Your task to perform on an android device: Look up the best rated Nike shoes on Nike.com Image 0: 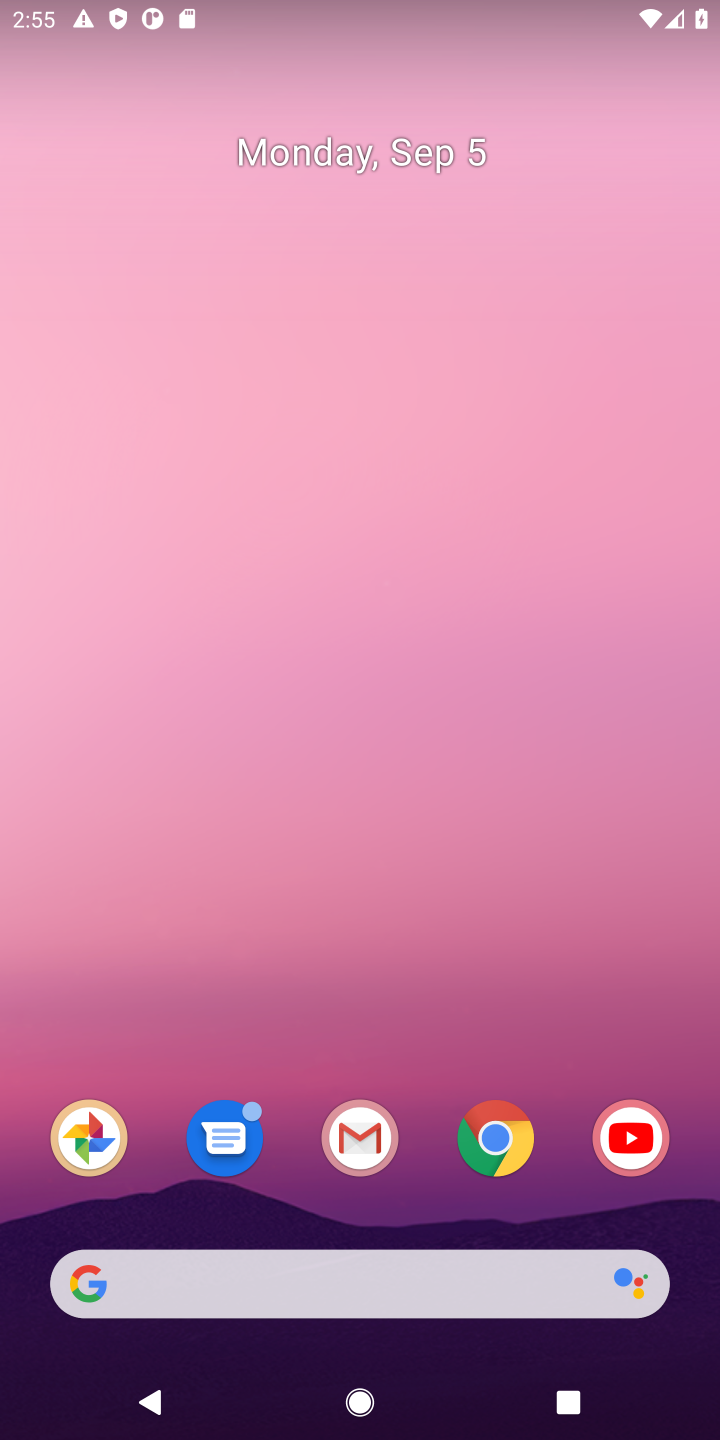
Step 0: click (494, 1137)
Your task to perform on an android device: Look up the best rated Nike shoes on Nike.com Image 1: 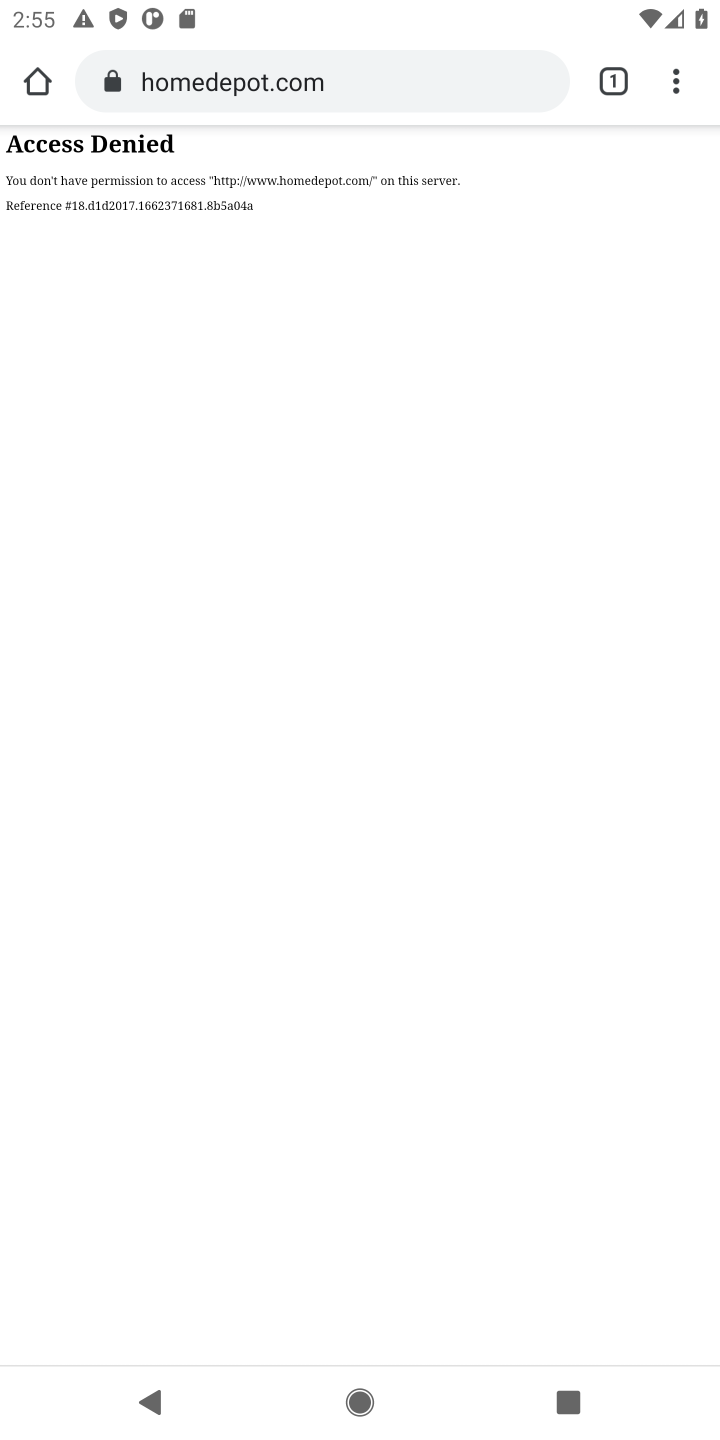
Step 1: click (446, 89)
Your task to perform on an android device: Look up the best rated Nike shoes on Nike.com Image 2: 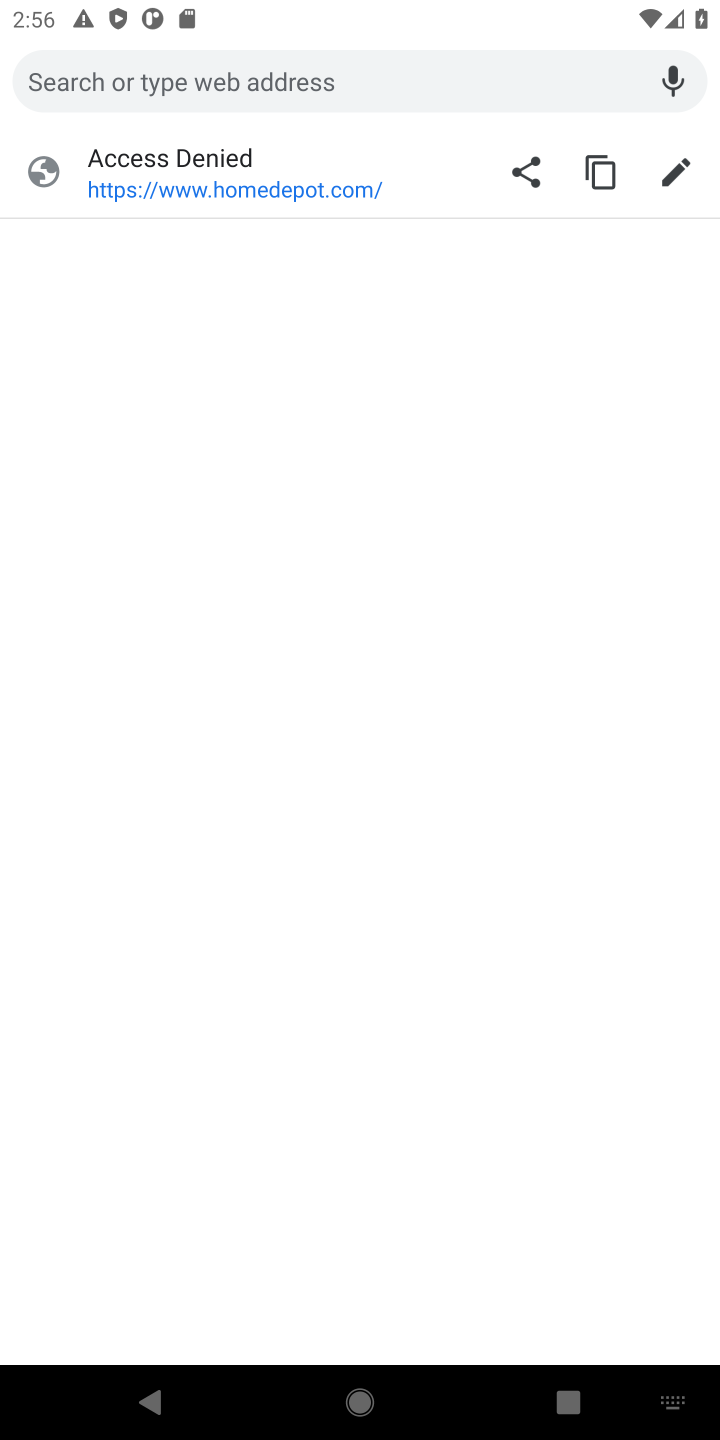
Step 2: type "Nike.com"
Your task to perform on an android device: Look up the best rated Nike shoes on Nike.com Image 3: 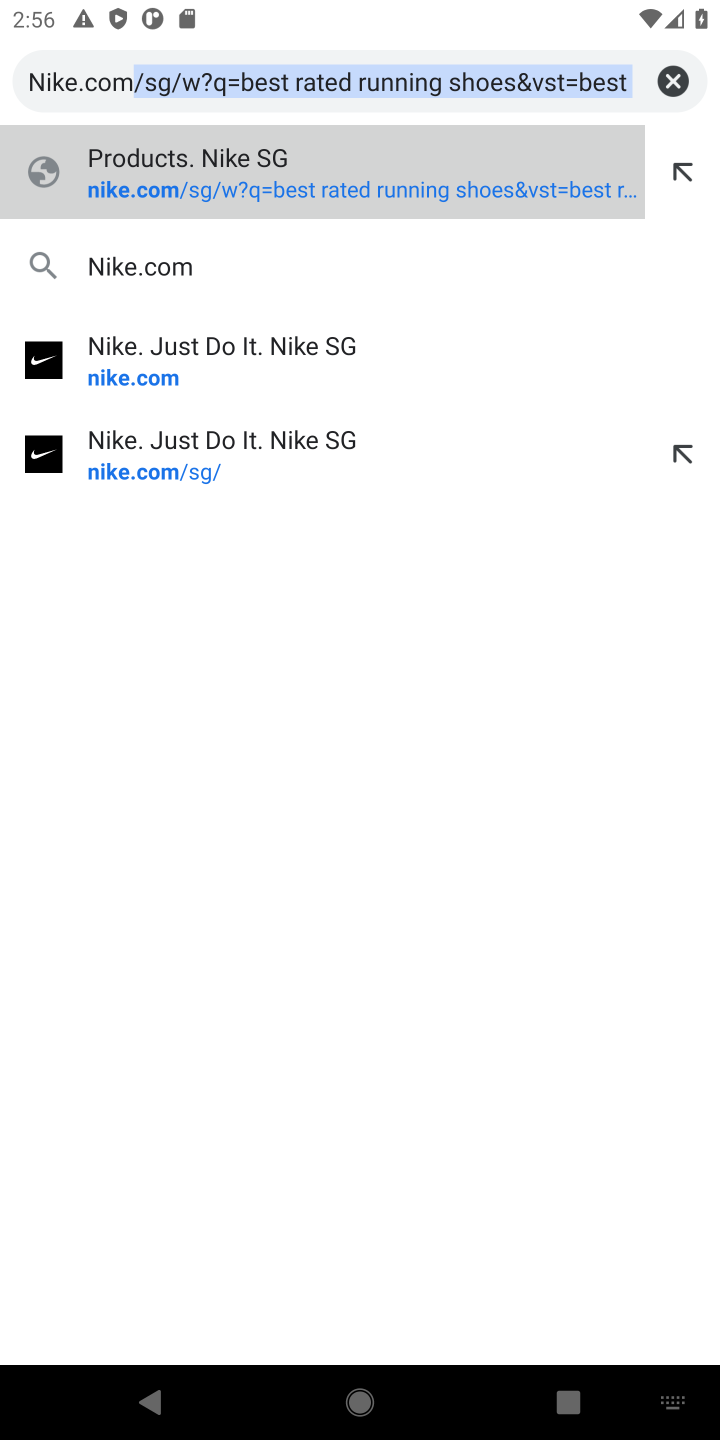
Step 3: click (121, 265)
Your task to perform on an android device: Look up the best rated Nike shoes on Nike.com Image 4: 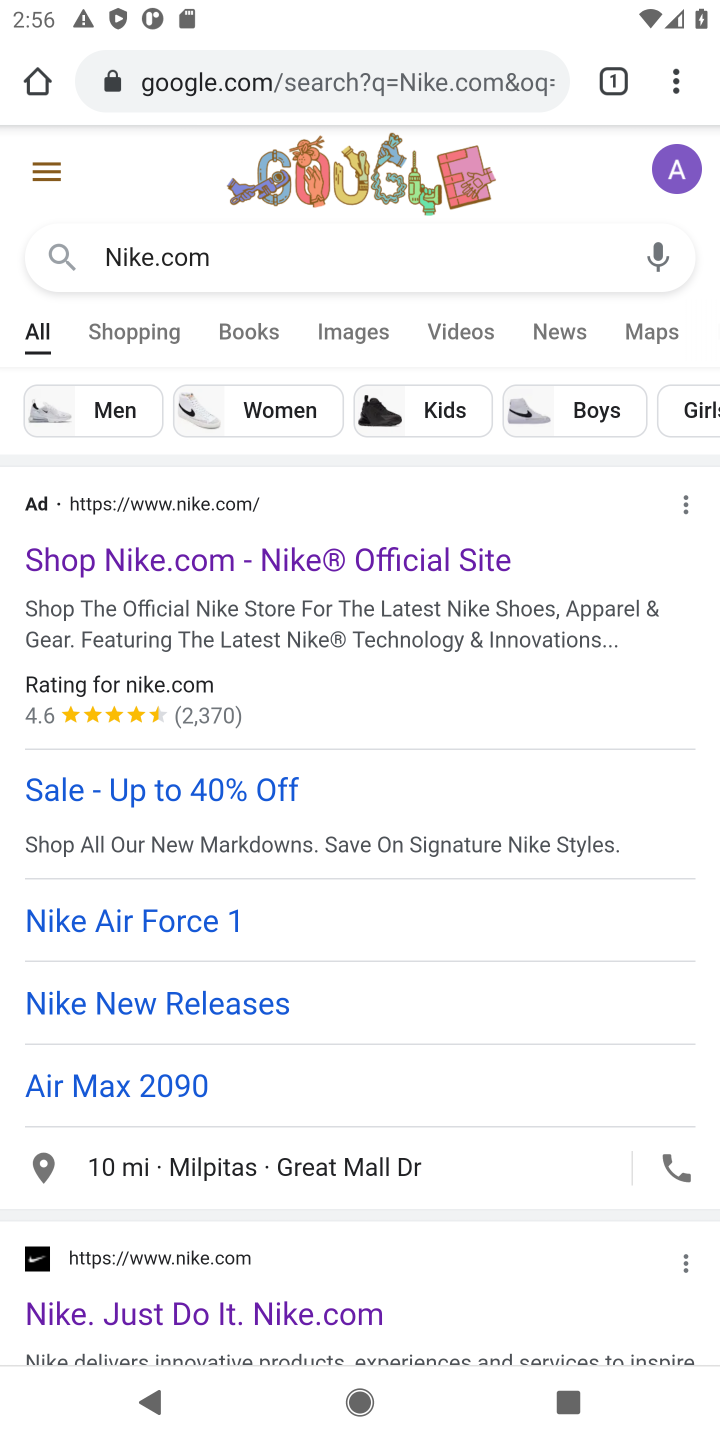
Step 4: click (337, 1331)
Your task to perform on an android device: Look up the best rated Nike shoes on Nike.com Image 5: 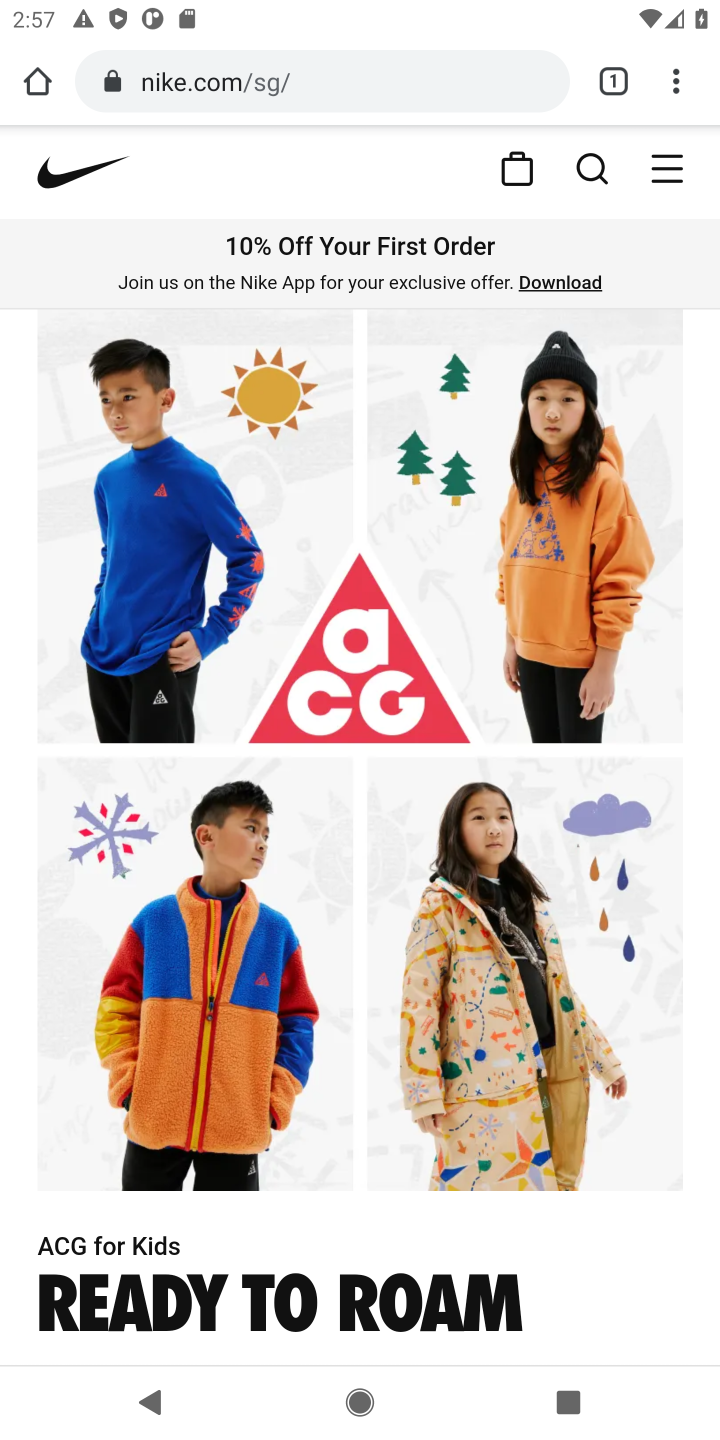
Step 5: click (589, 167)
Your task to perform on an android device: Look up the best rated Nike shoes on Nike.com Image 6: 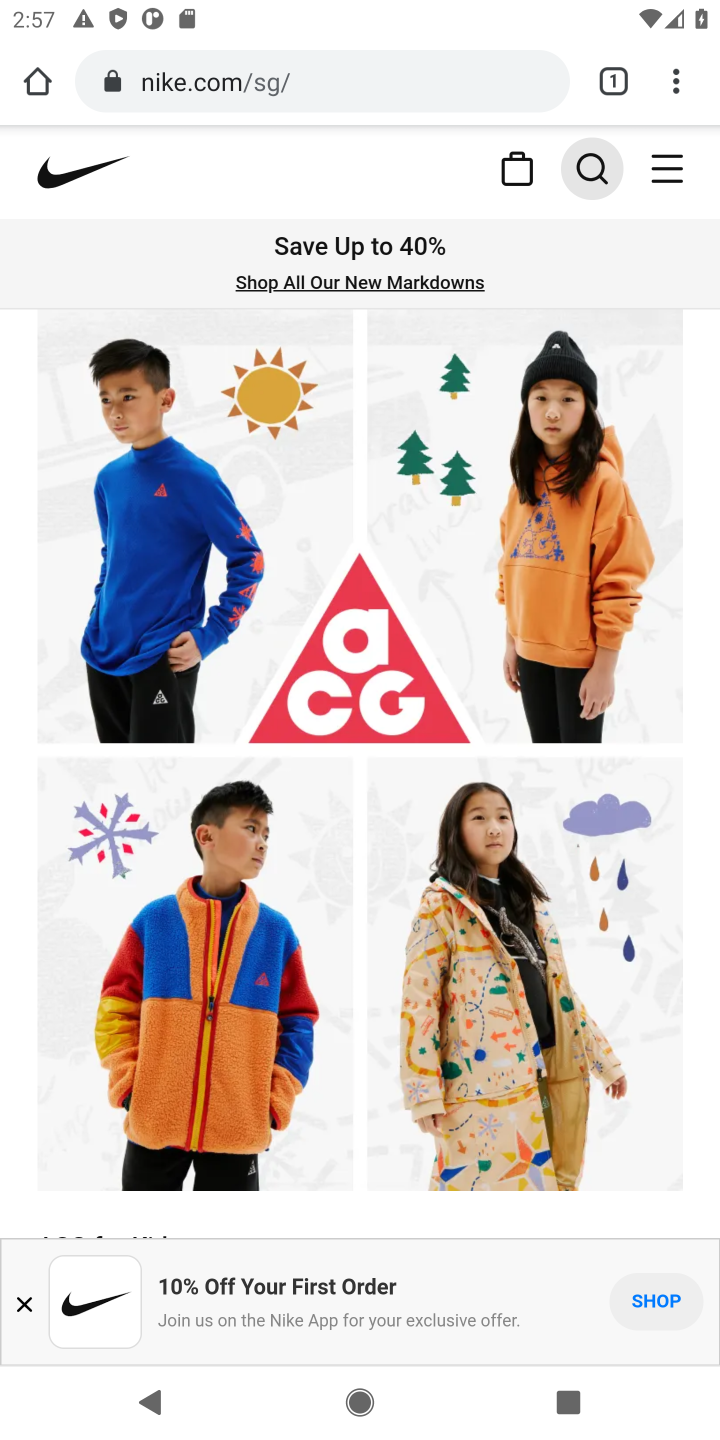
Step 6: click (583, 178)
Your task to perform on an android device: Look up the best rated Nike shoes on Nike.com Image 7: 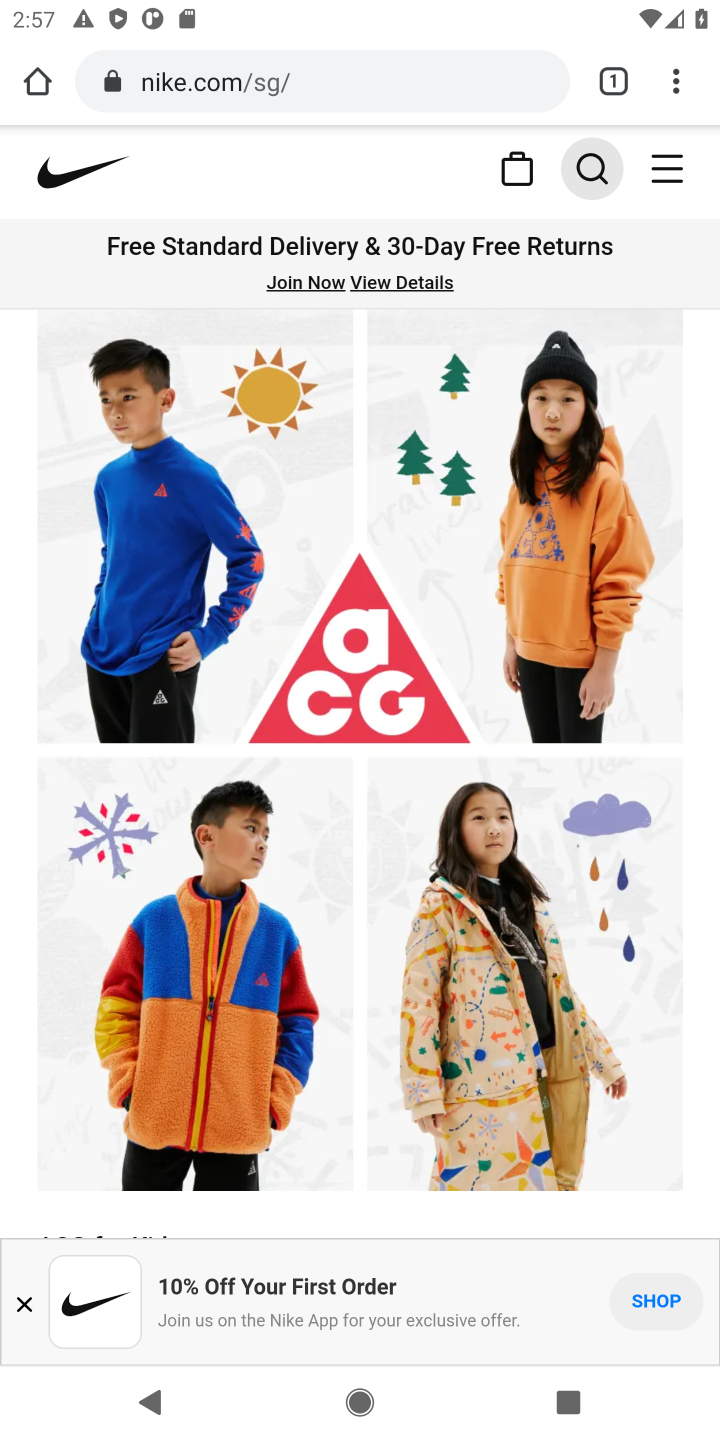
Step 7: click (601, 177)
Your task to perform on an android device: Look up the best rated Nike shoes on Nike.com Image 8: 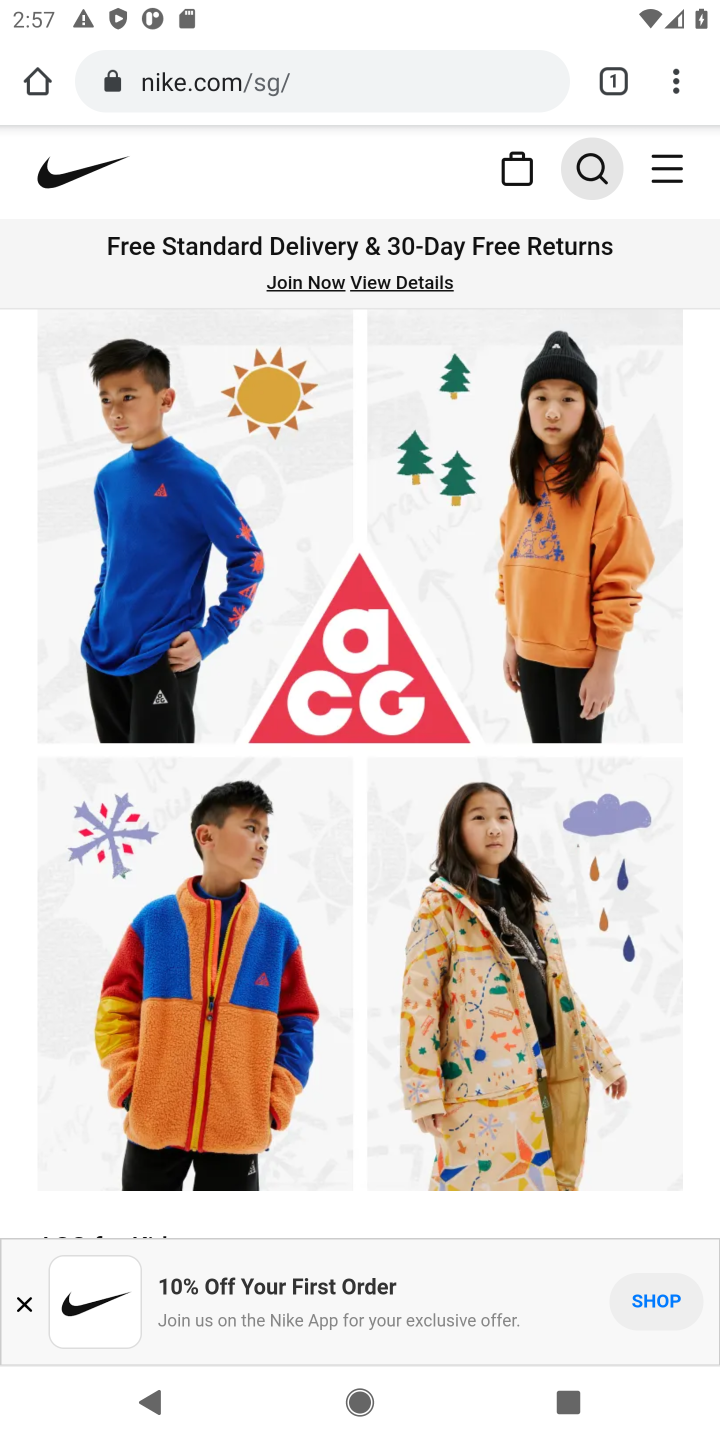
Step 8: click (592, 176)
Your task to perform on an android device: Look up the best rated Nike shoes on Nike.com Image 9: 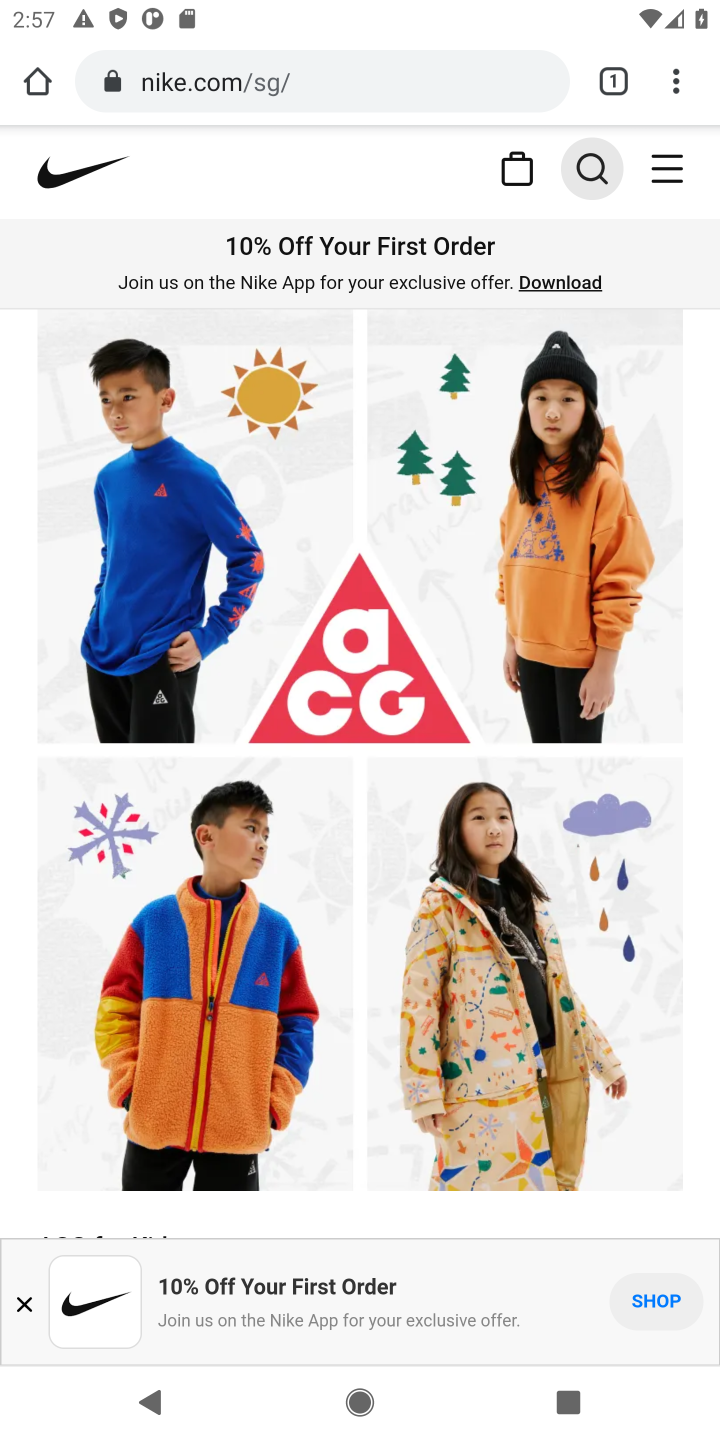
Step 9: click (582, 168)
Your task to perform on an android device: Look up the best rated Nike shoes on Nike.com Image 10: 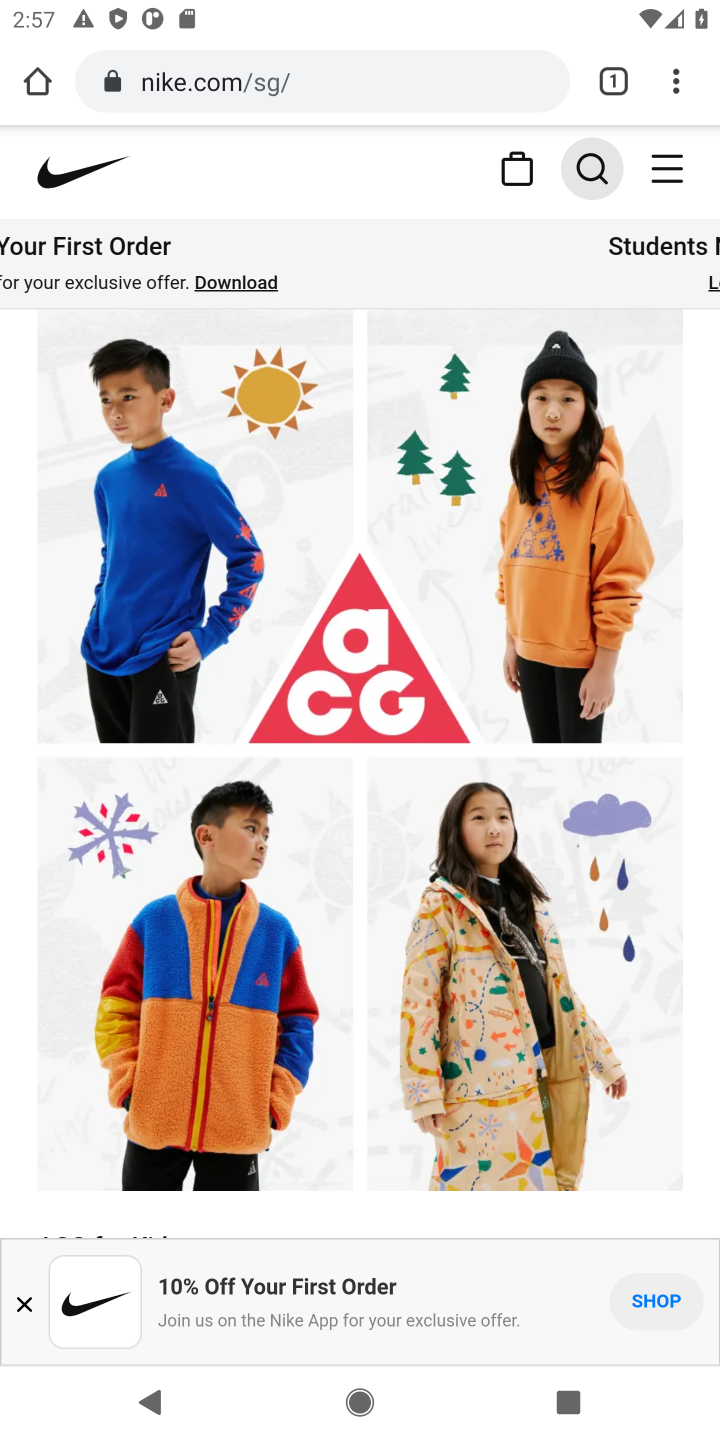
Step 10: click (590, 170)
Your task to perform on an android device: Look up the best rated Nike shoes on Nike.com Image 11: 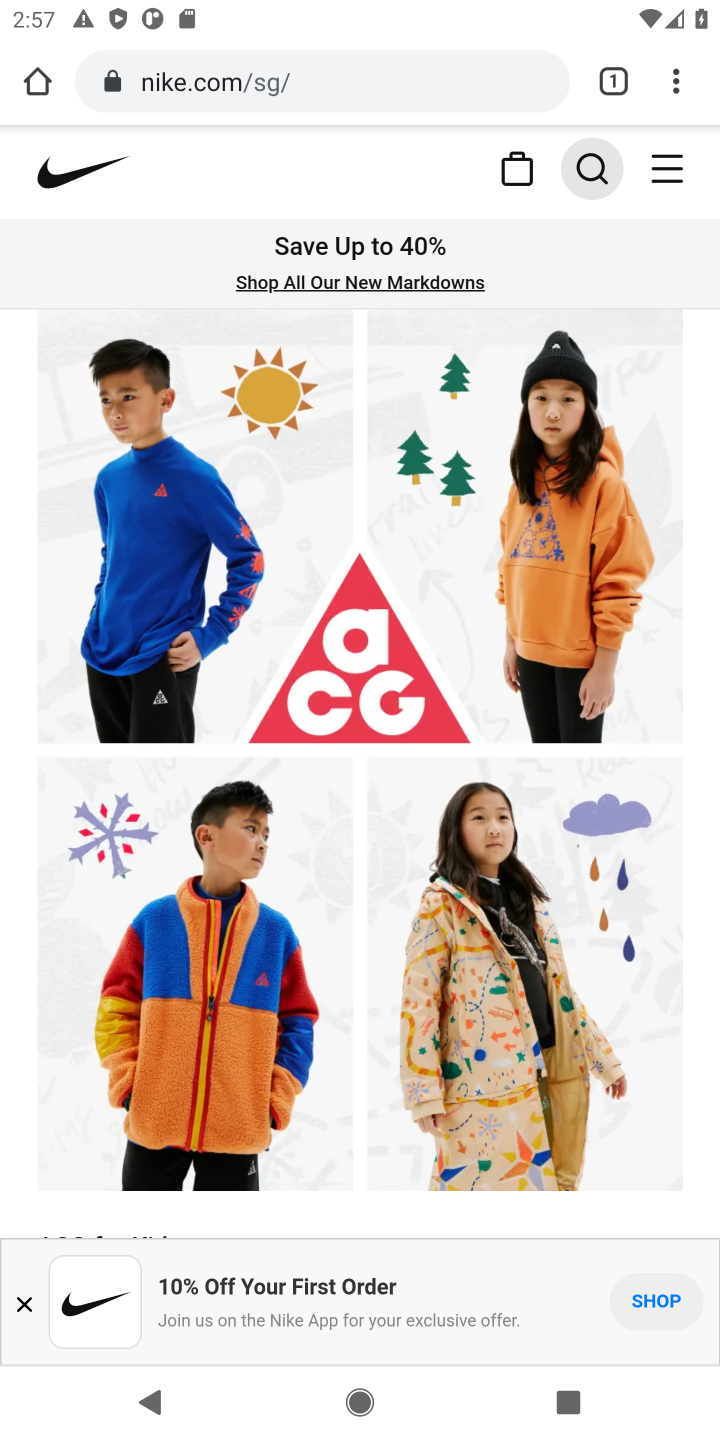
Step 11: click (589, 164)
Your task to perform on an android device: Look up the best rated Nike shoes on Nike.com Image 12: 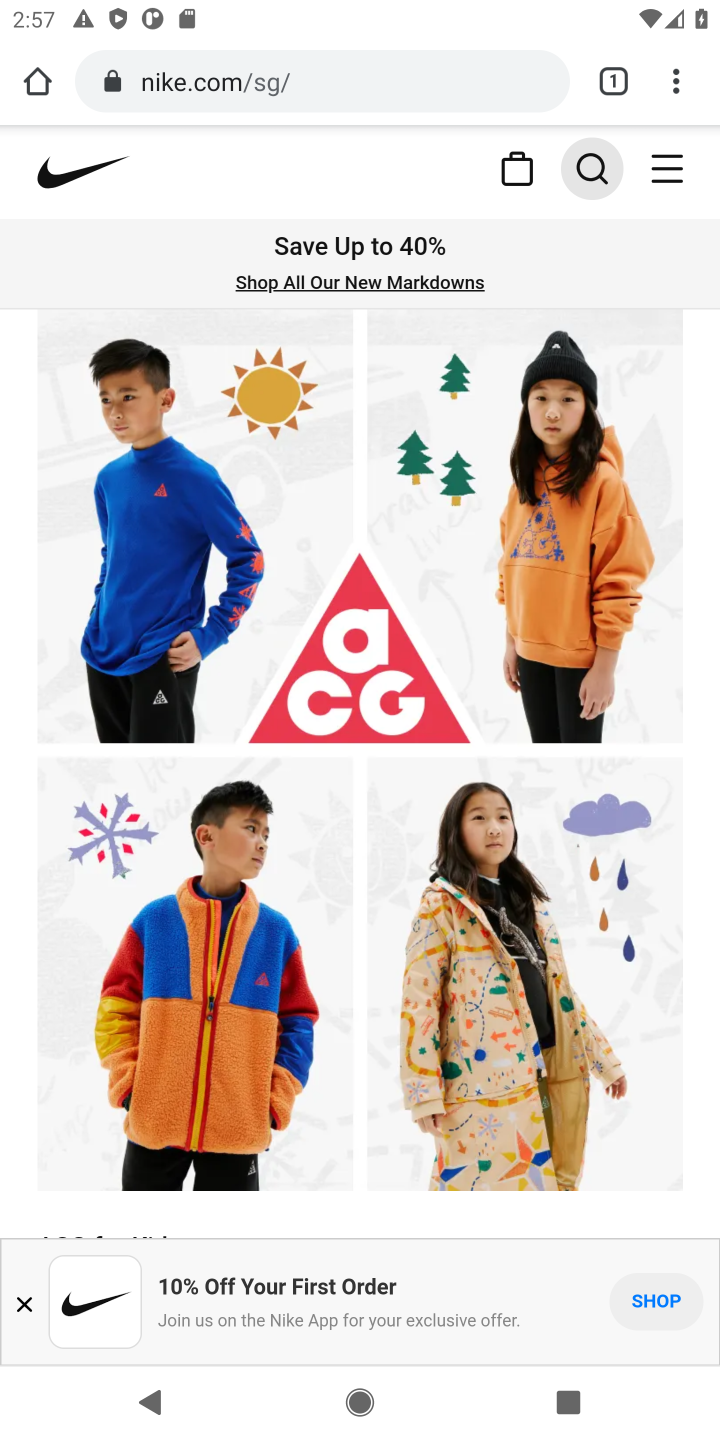
Step 12: click (585, 159)
Your task to perform on an android device: Look up the best rated Nike shoes on Nike.com Image 13: 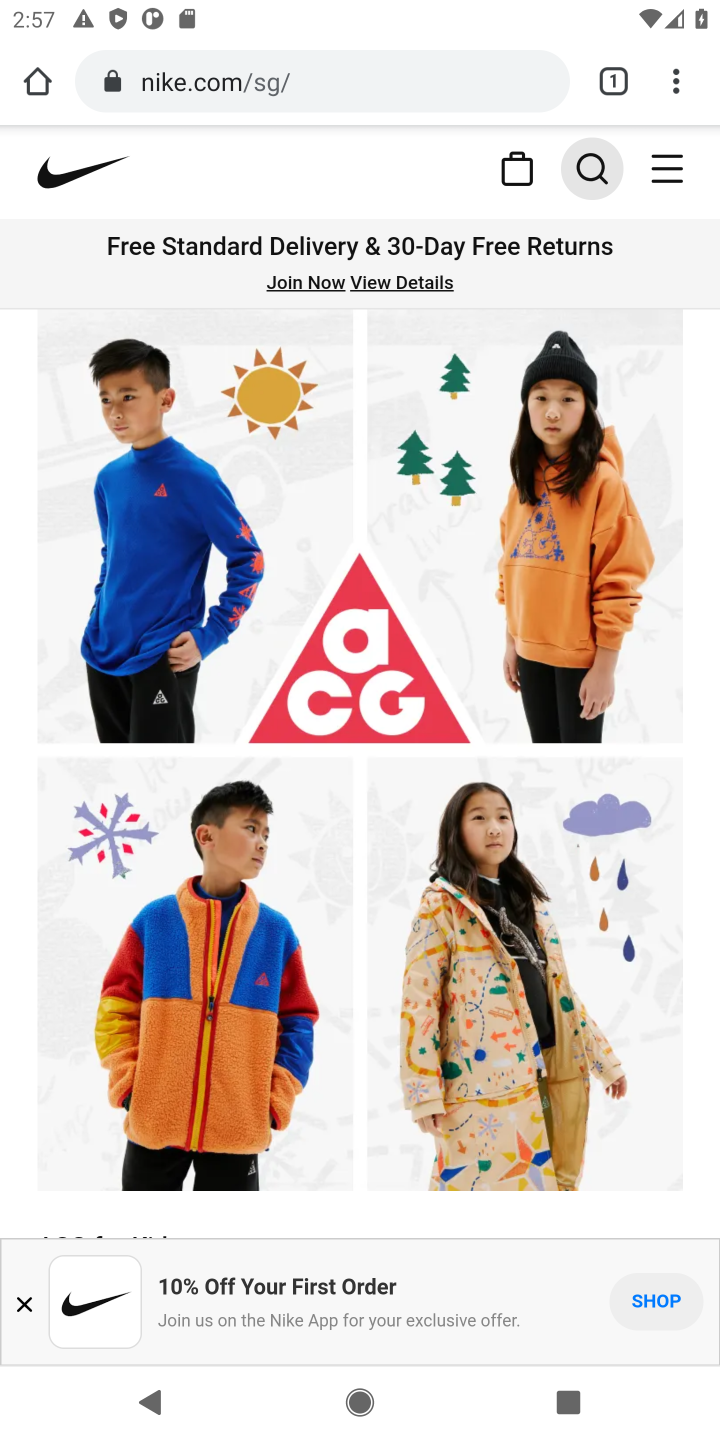
Step 13: click (604, 182)
Your task to perform on an android device: Look up the best rated Nike shoes on Nike.com Image 14: 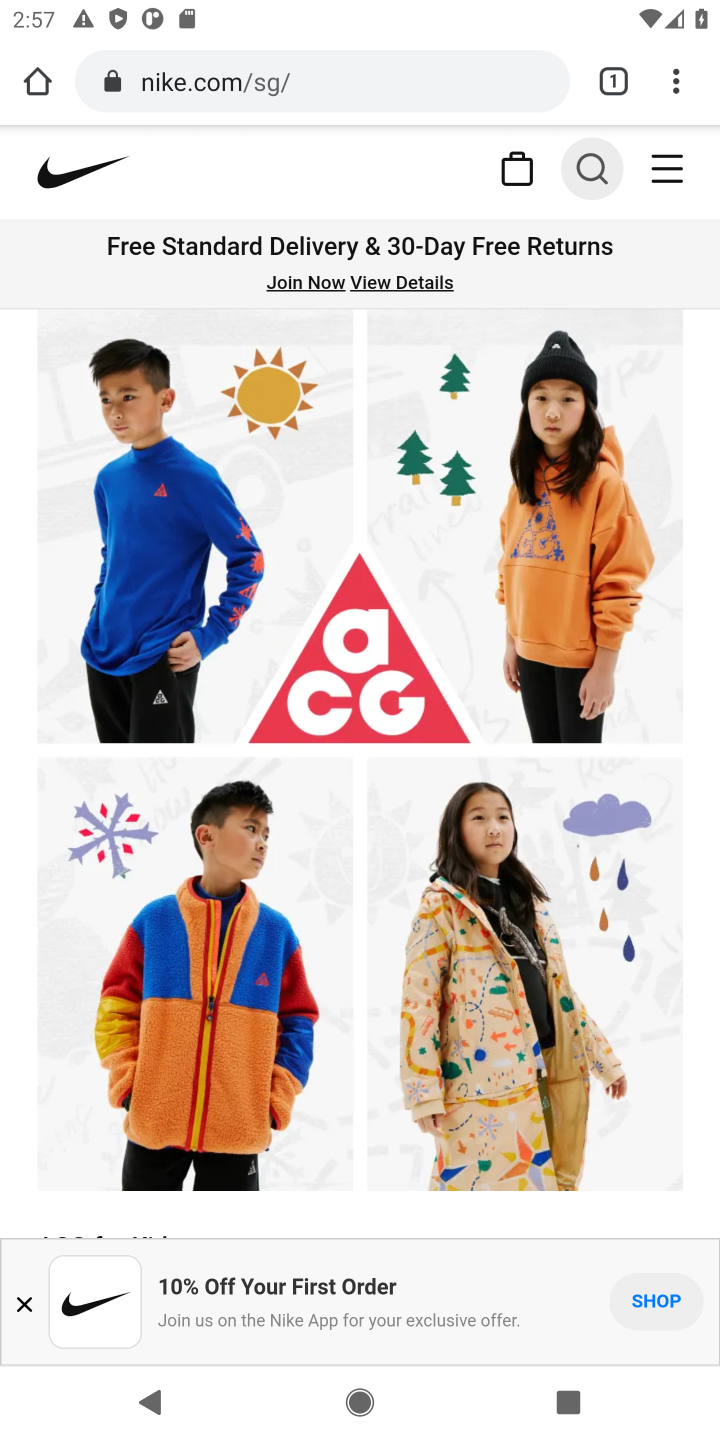
Step 14: click (575, 176)
Your task to perform on an android device: Look up the best rated Nike shoes on Nike.com Image 15: 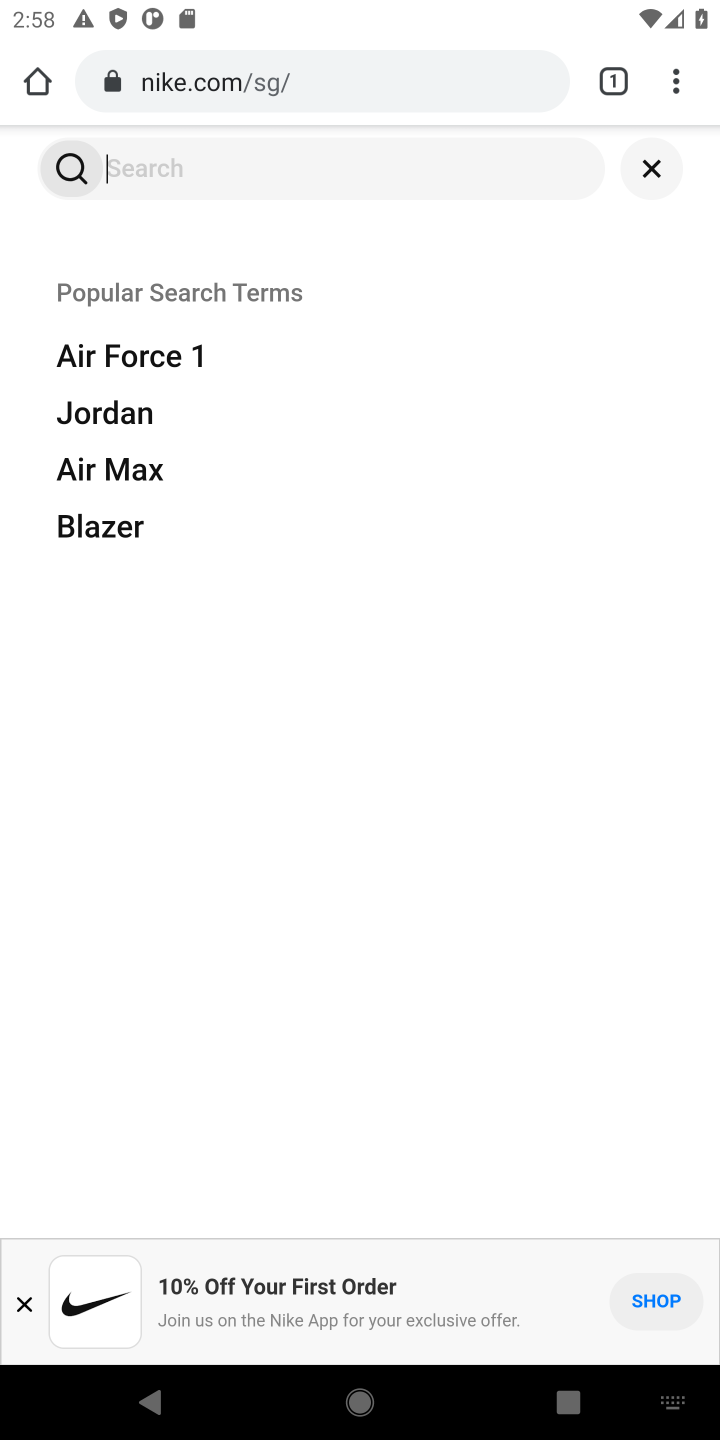
Step 15: type "best rated Nike shoes"
Your task to perform on an android device: Look up the best rated Nike shoes on Nike.com Image 16: 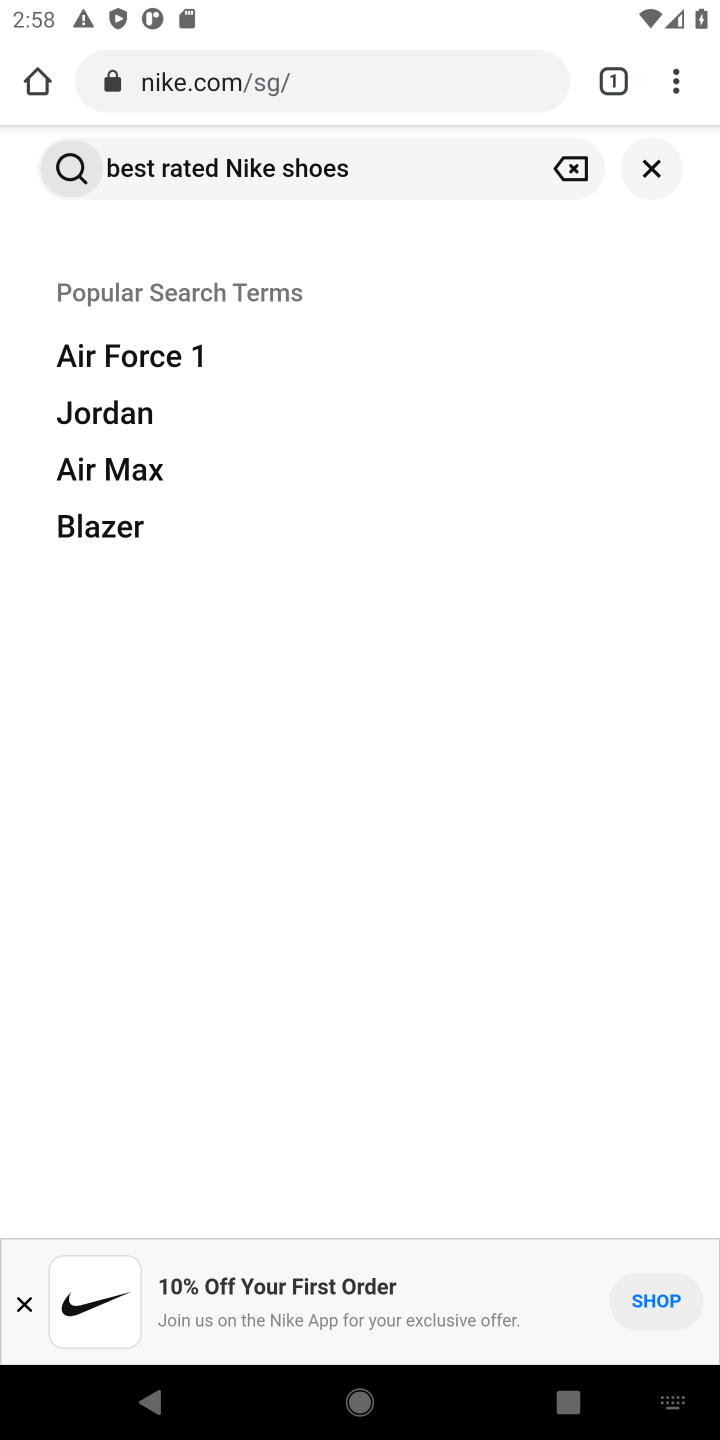
Step 16: click (77, 176)
Your task to perform on an android device: Look up the best rated Nike shoes on Nike.com Image 17: 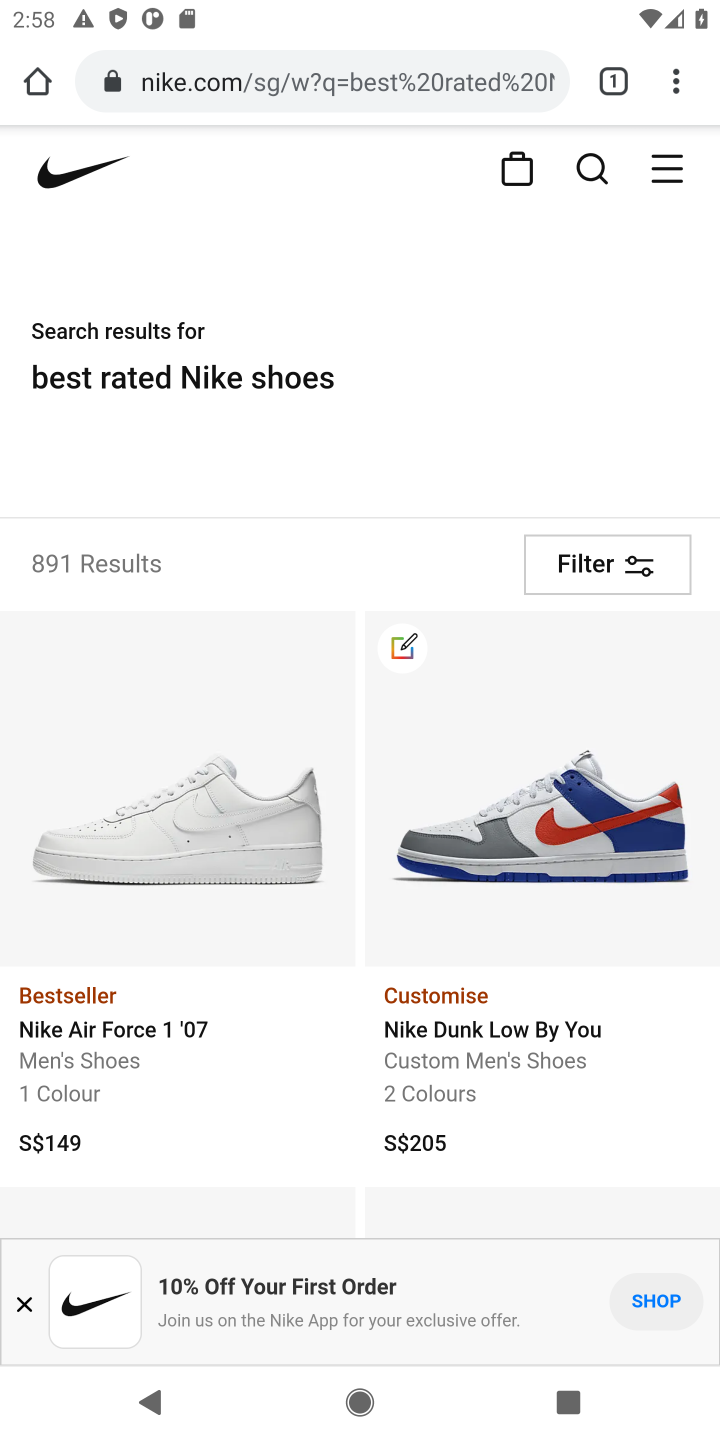
Step 17: task complete